Your task to perform on an android device: Add "macbook" to the cart on amazon Image 0: 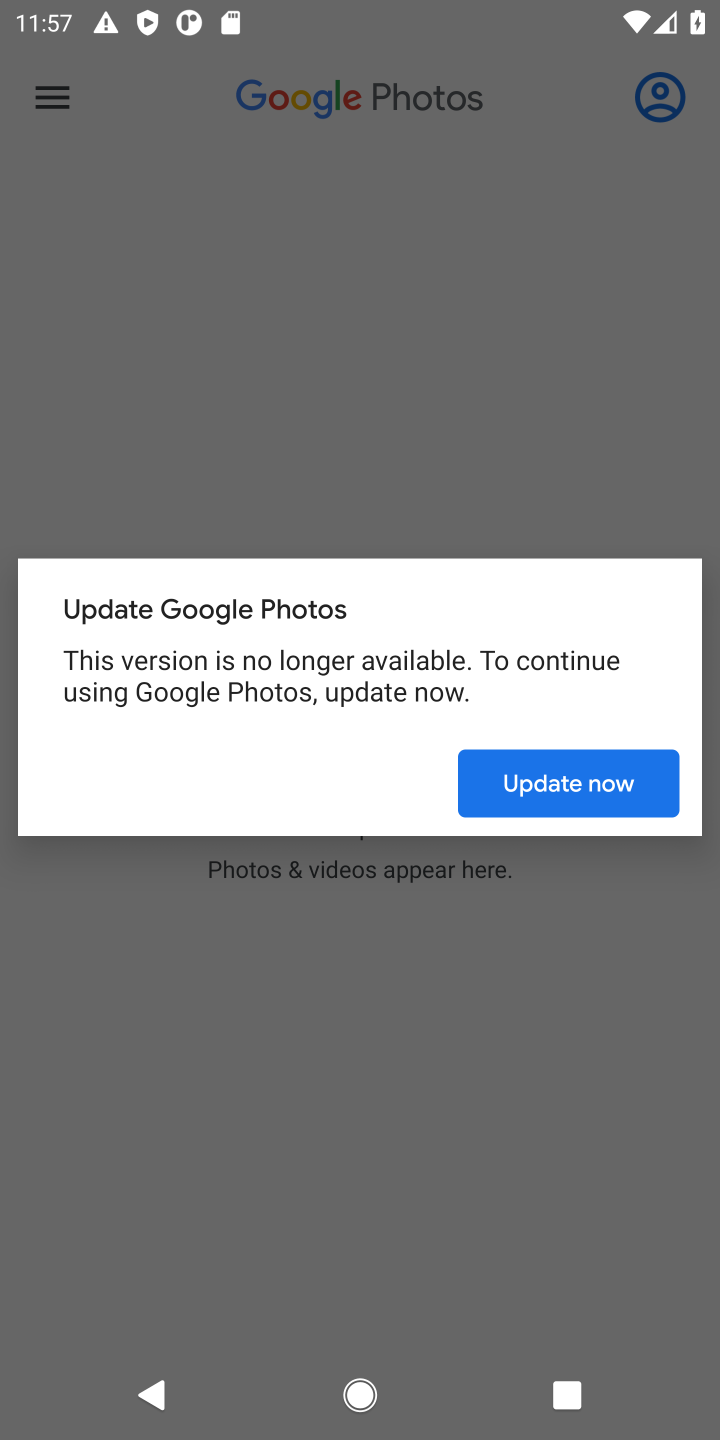
Step 0: press home button
Your task to perform on an android device: Add "macbook" to the cart on amazon Image 1: 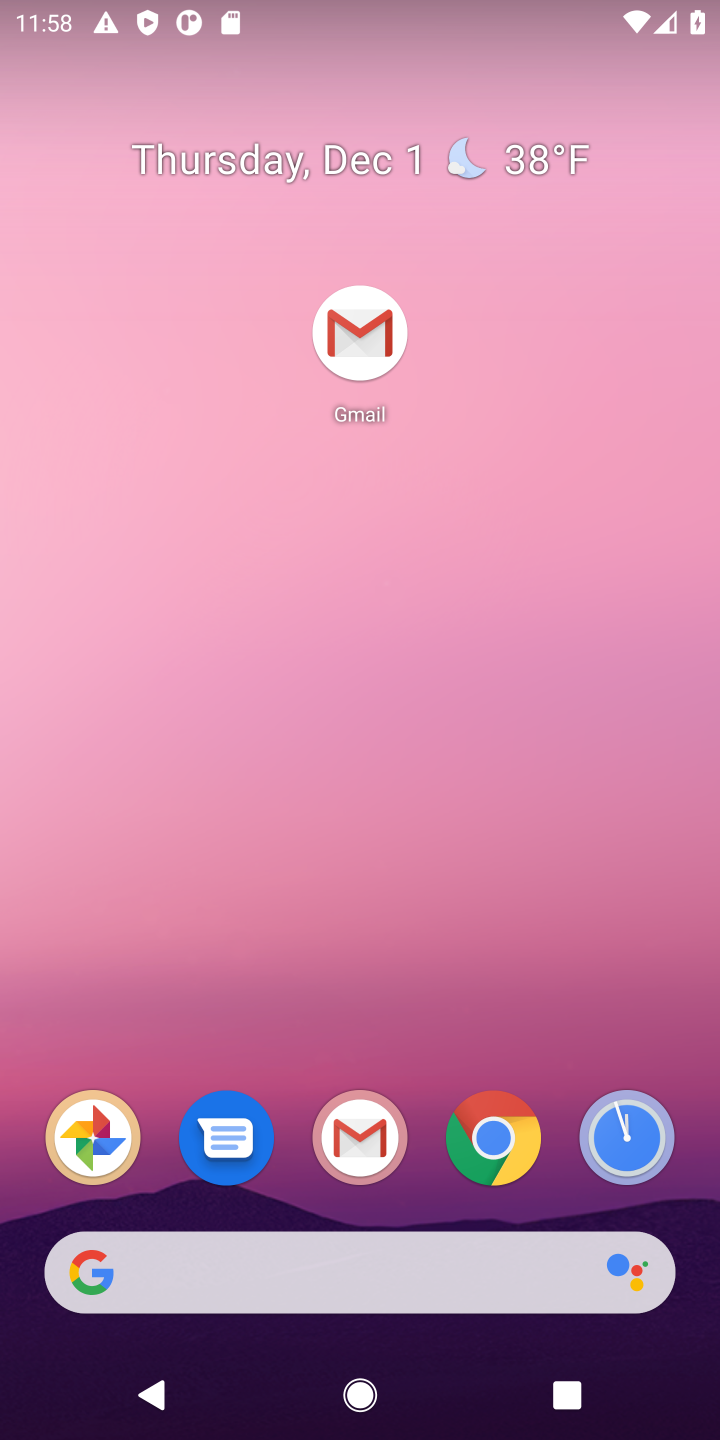
Step 1: drag from (468, 1025) to (527, 253)
Your task to perform on an android device: Add "macbook" to the cart on amazon Image 2: 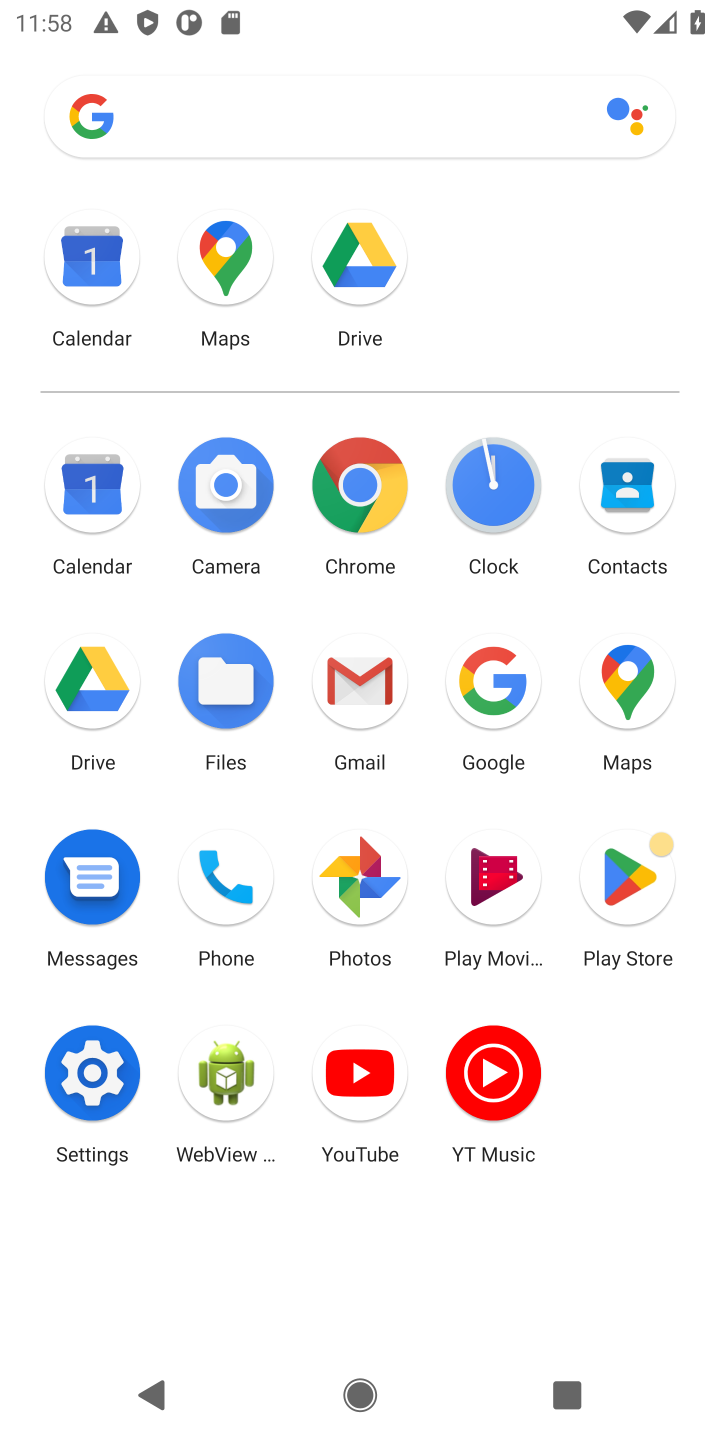
Step 2: click (500, 745)
Your task to perform on an android device: Add "macbook" to the cart on amazon Image 3: 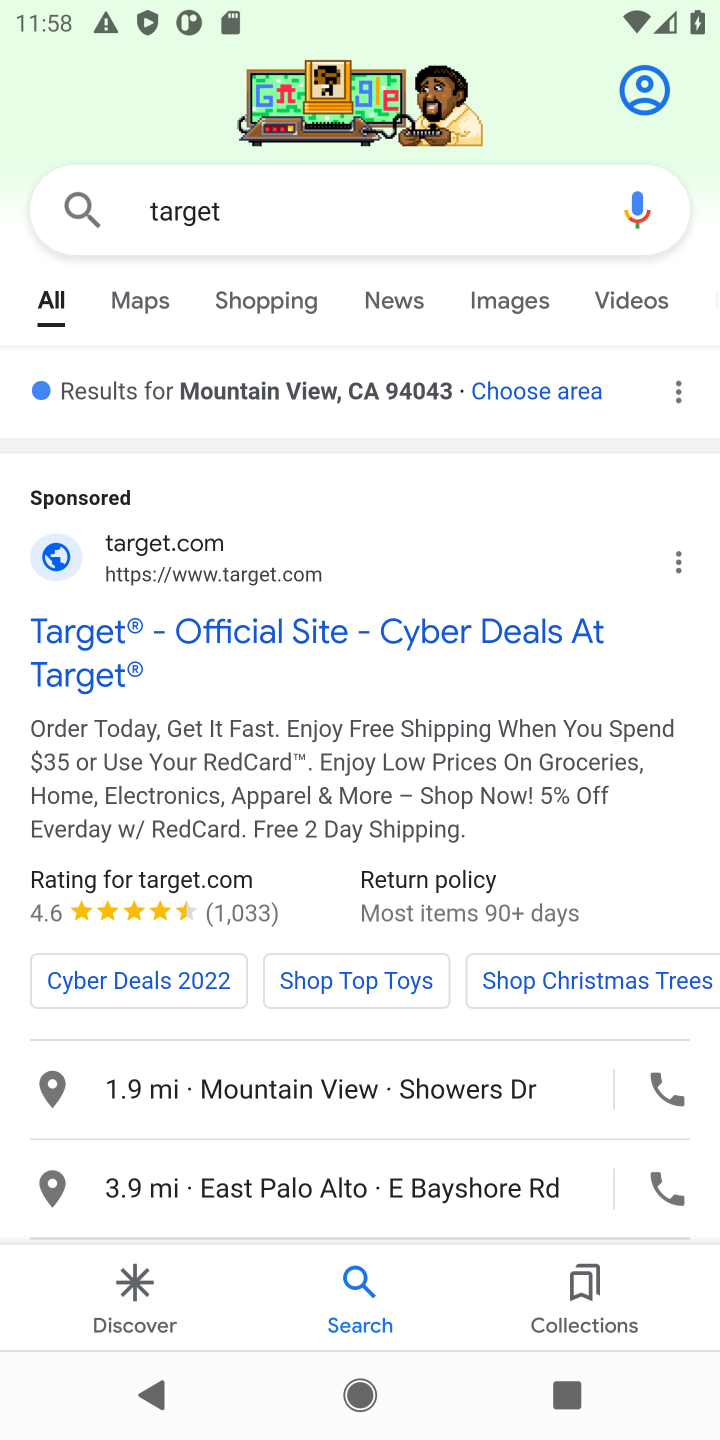
Step 3: click (489, 246)
Your task to perform on an android device: Add "macbook" to the cart on amazon Image 4: 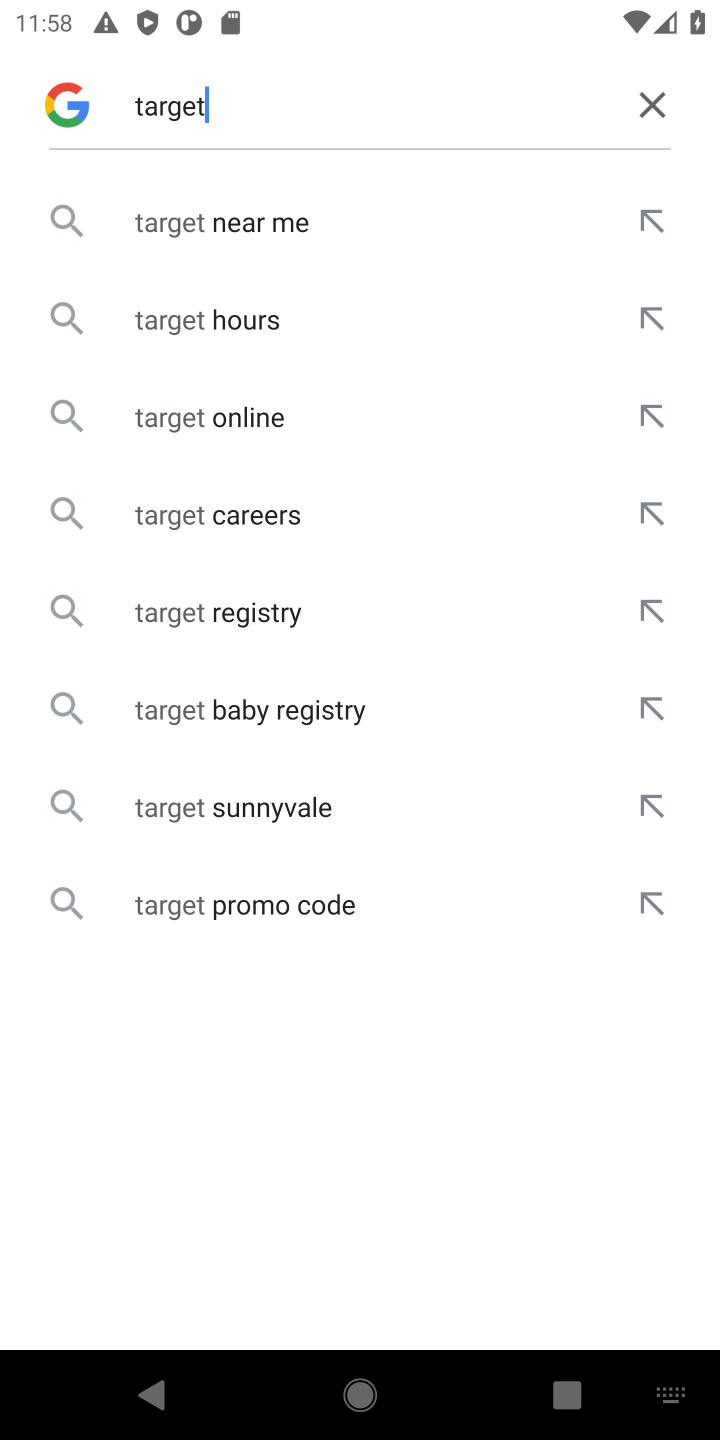
Step 4: click (649, 100)
Your task to perform on an android device: Add "macbook" to the cart on amazon Image 5: 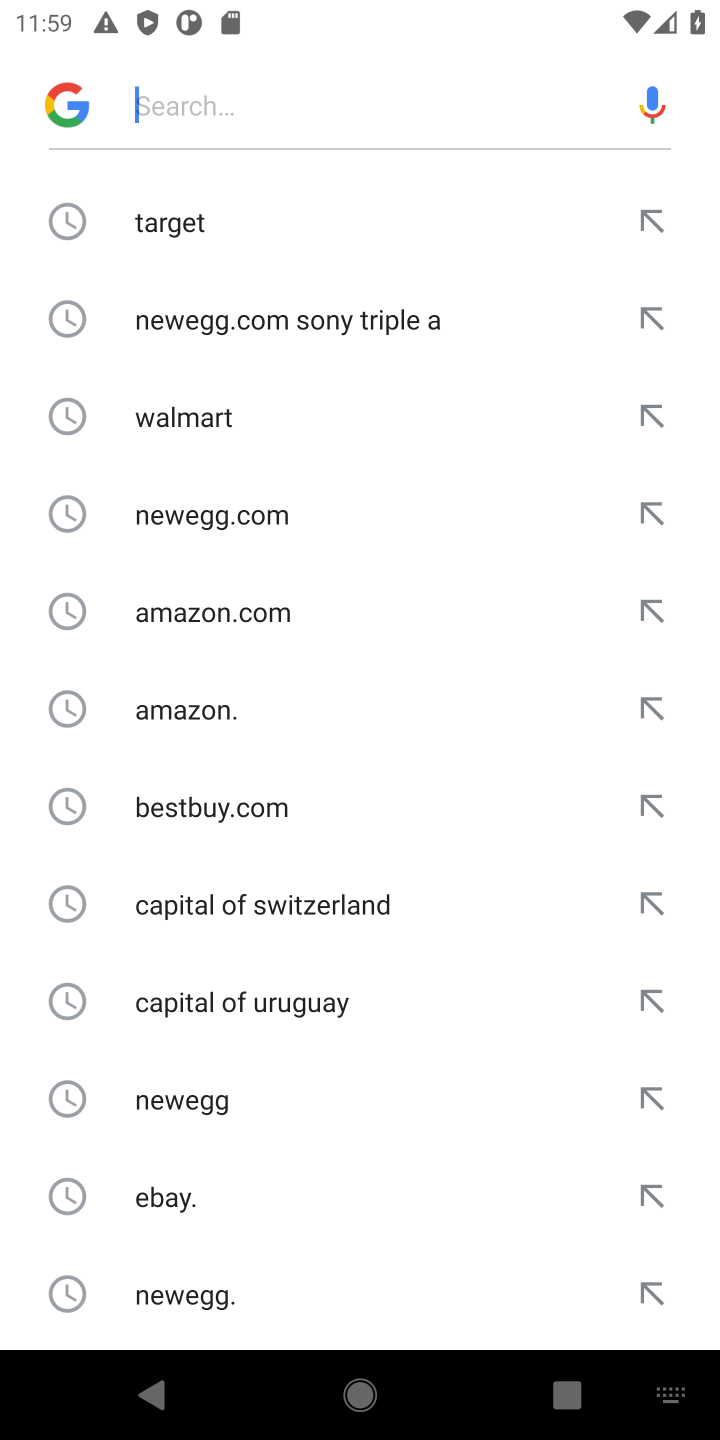
Step 5: type "macbook"
Your task to perform on an android device: Add "macbook" to the cart on amazon Image 6: 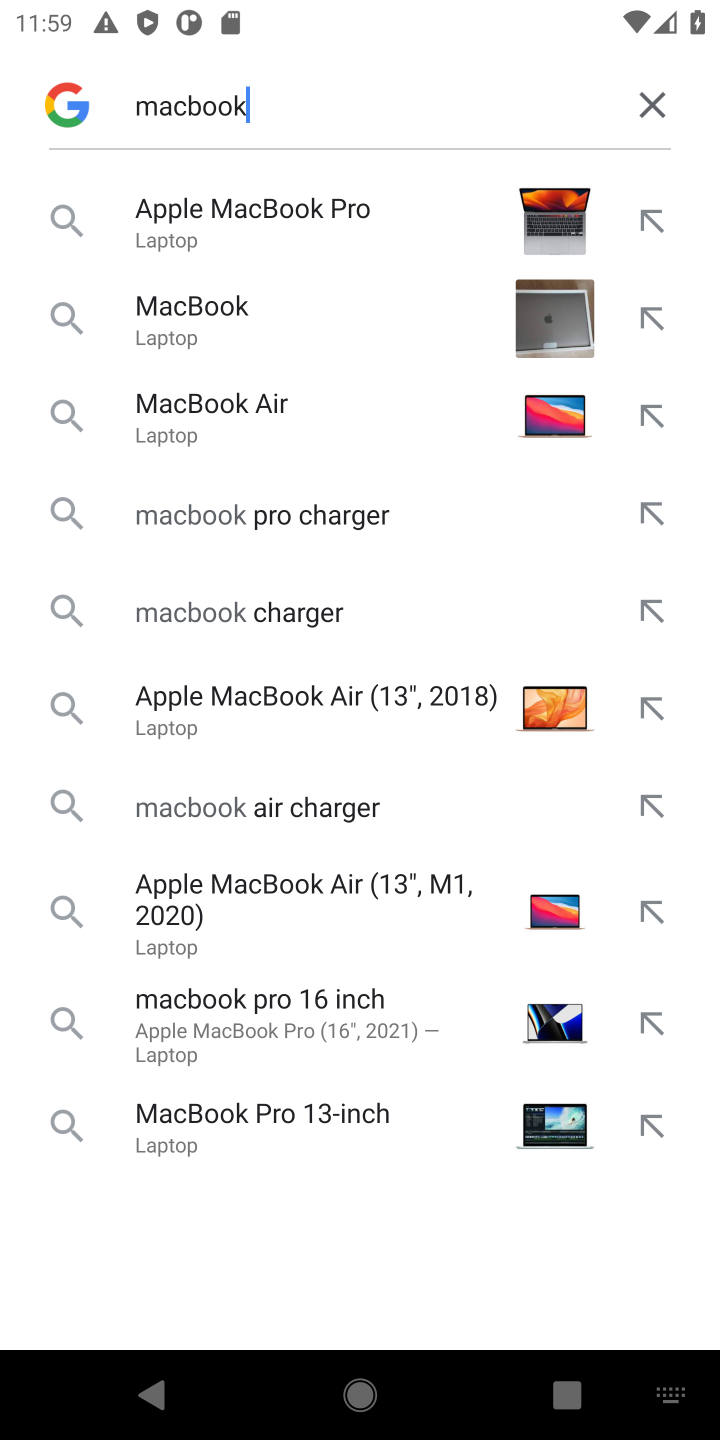
Step 6: click (661, 106)
Your task to perform on an android device: Add "macbook" to the cart on amazon Image 7: 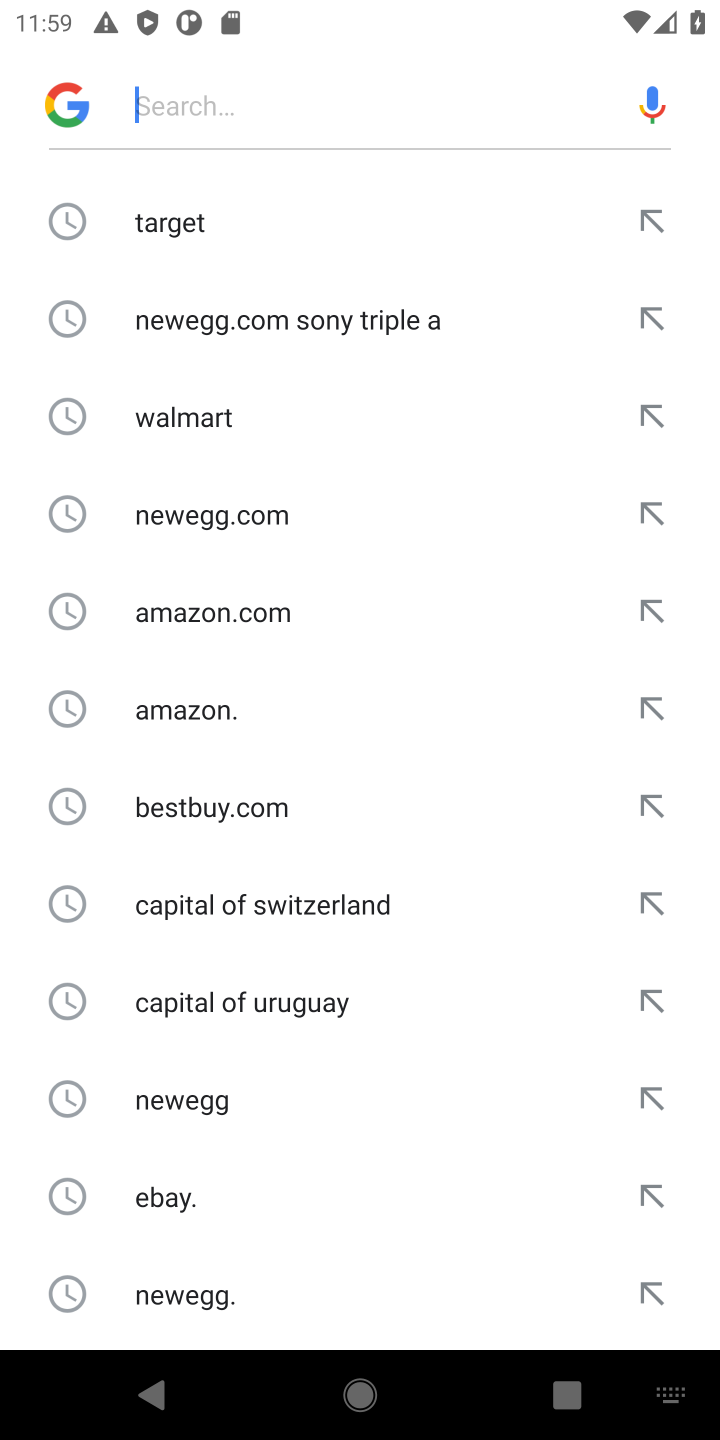
Step 7: click (308, 723)
Your task to perform on an android device: Add "macbook" to the cart on amazon Image 8: 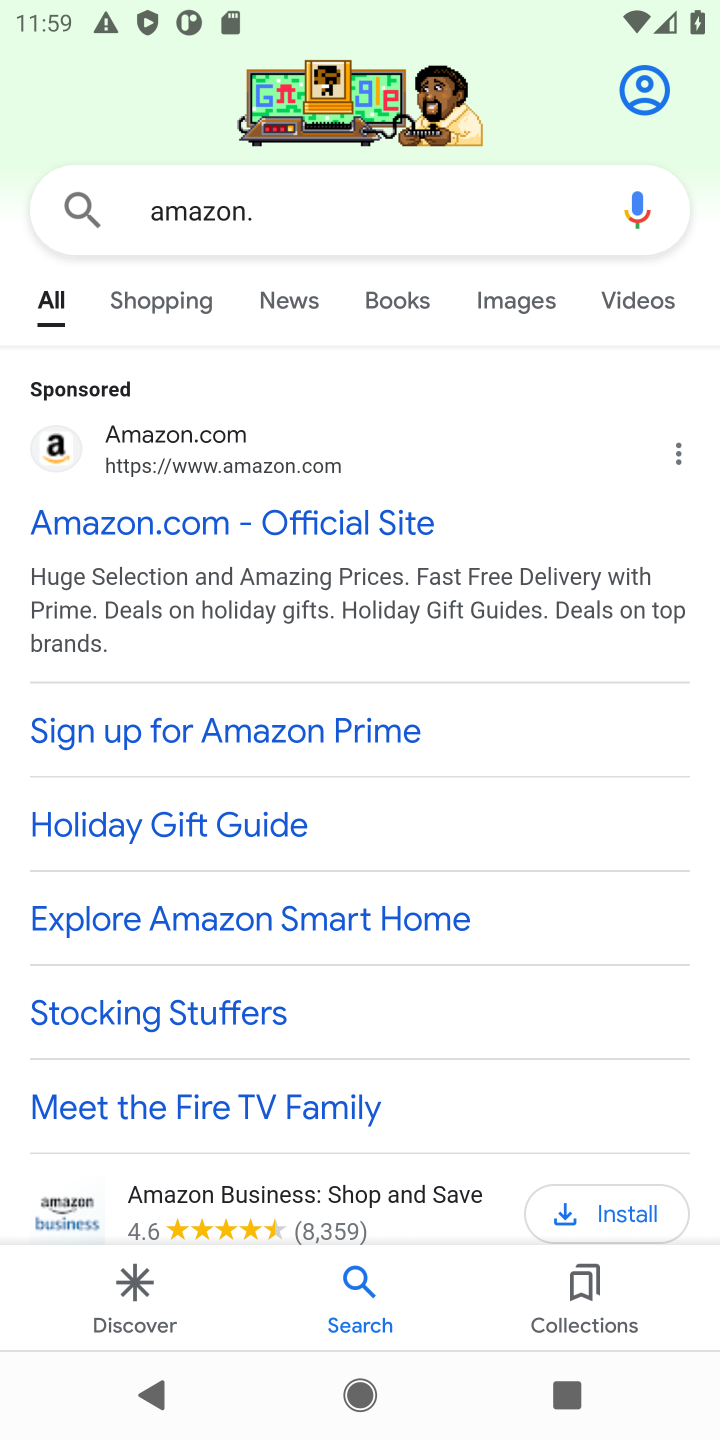
Step 8: click (300, 537)
Your task to perform on an android device: Add "macbook" to the cart on amazon Image 9: 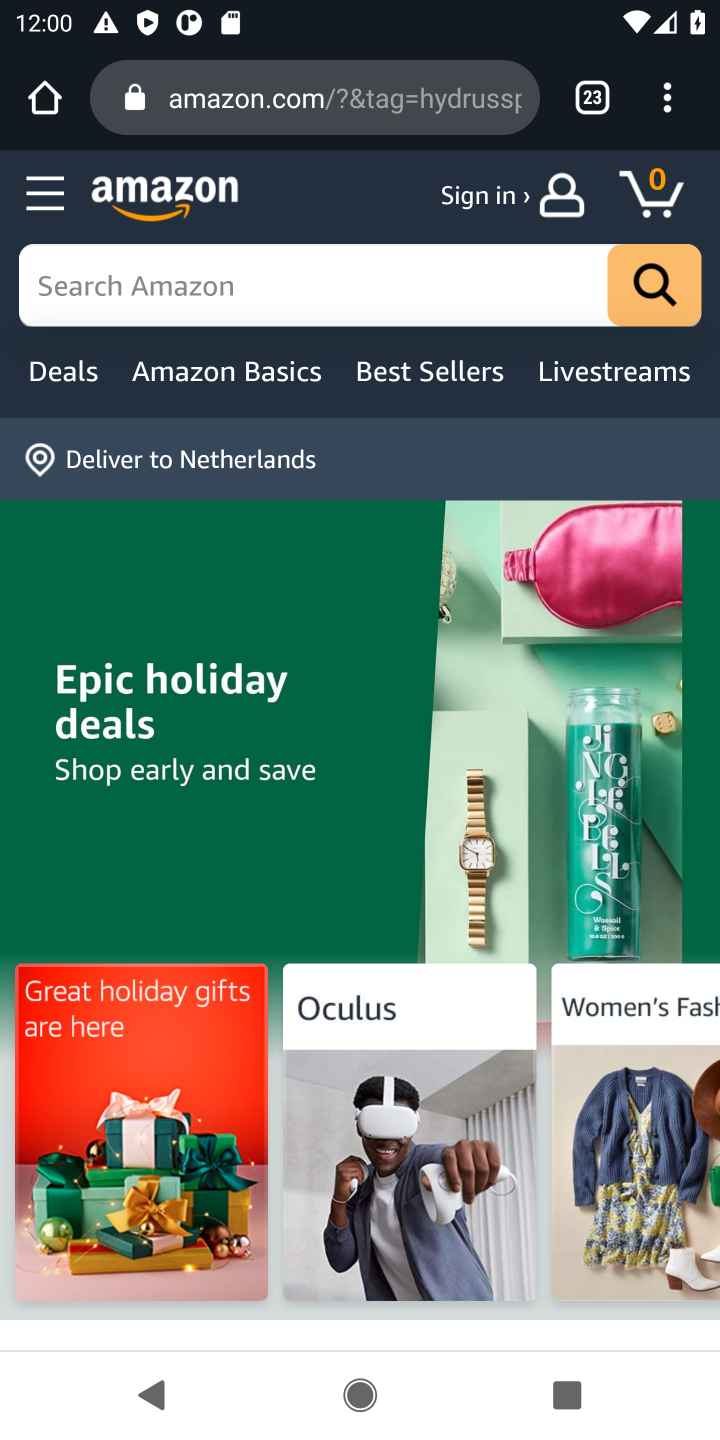
Step 9: click (277, 301)
Your task to perform on an android device: Add "macbook" to the cart on amazon Image 10: 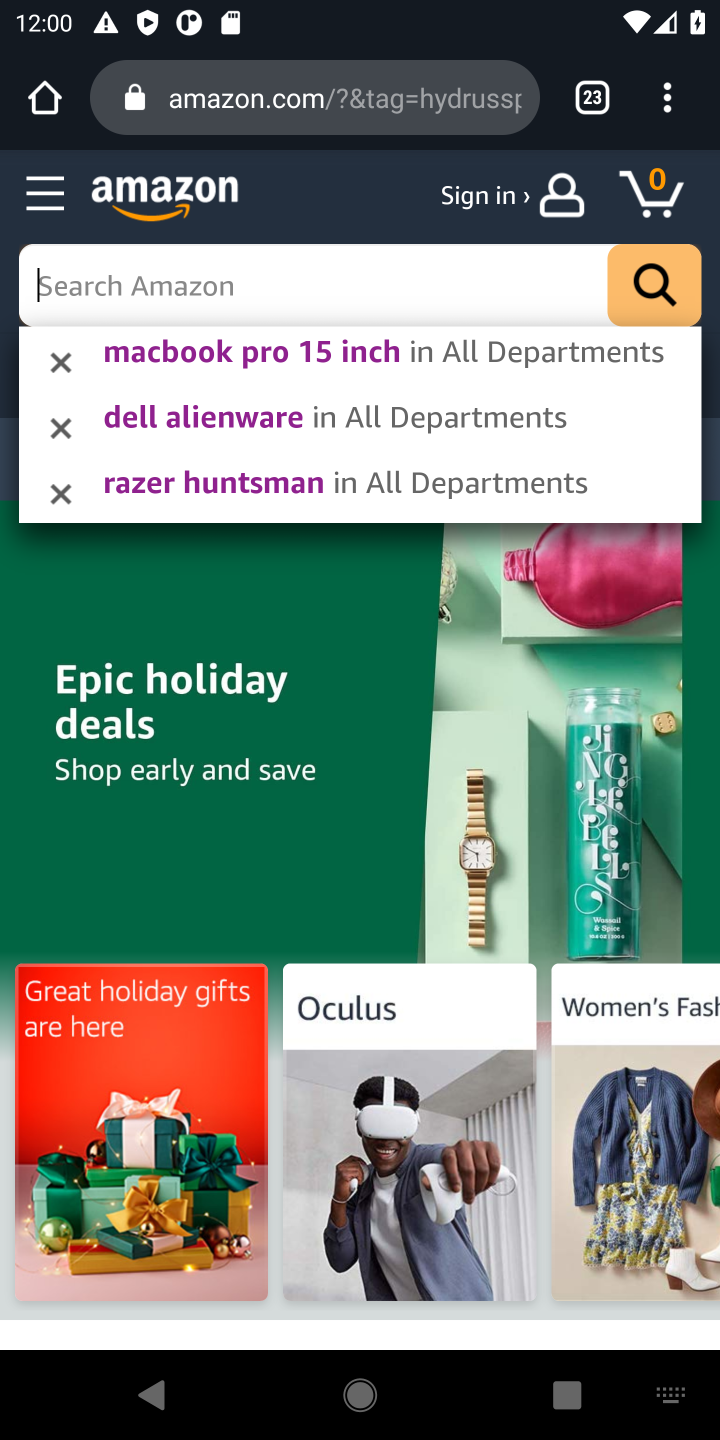
Step 10: type "macbook"
Your task to perform on an android device: Add "macbook" to the cart on amazon Image 11: 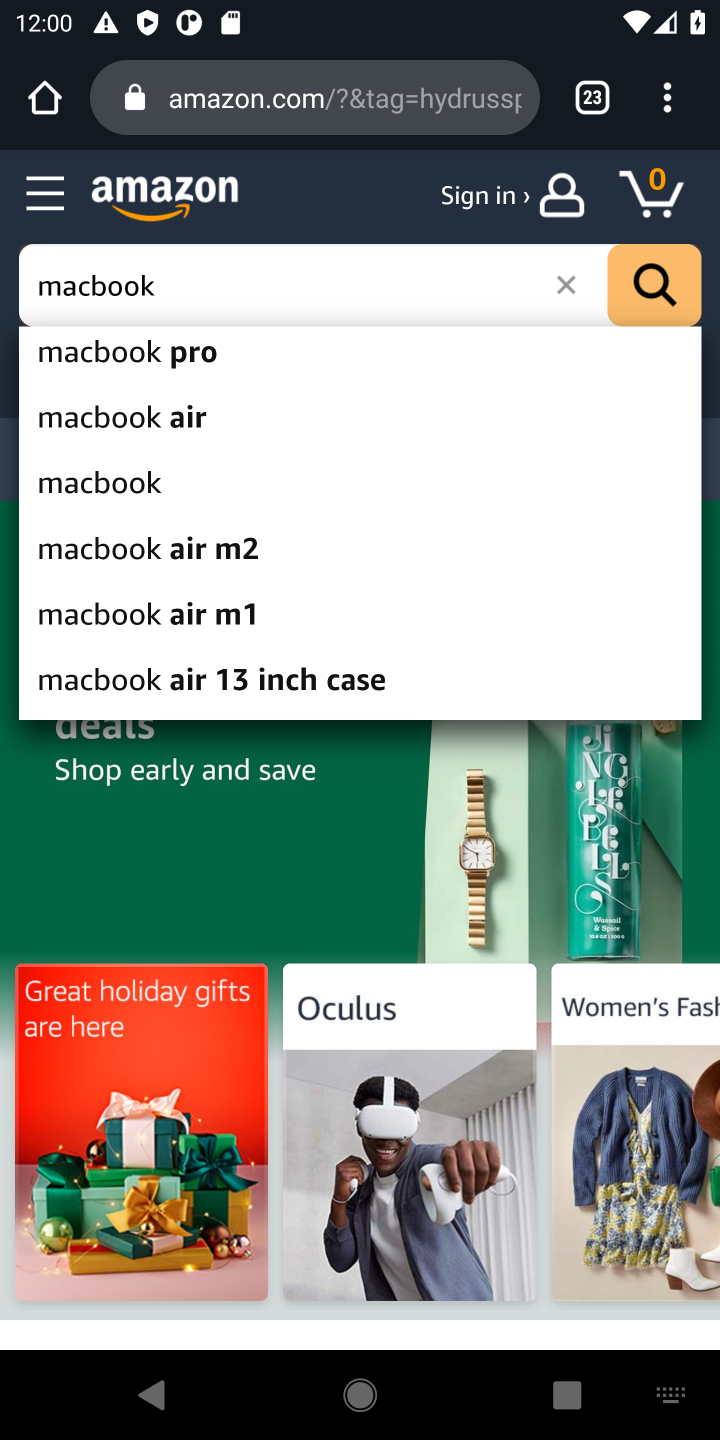
Step 11: click (116, 493)
Your task to perform on an android device: Add "macbook" to the cart on amazon Image 12: 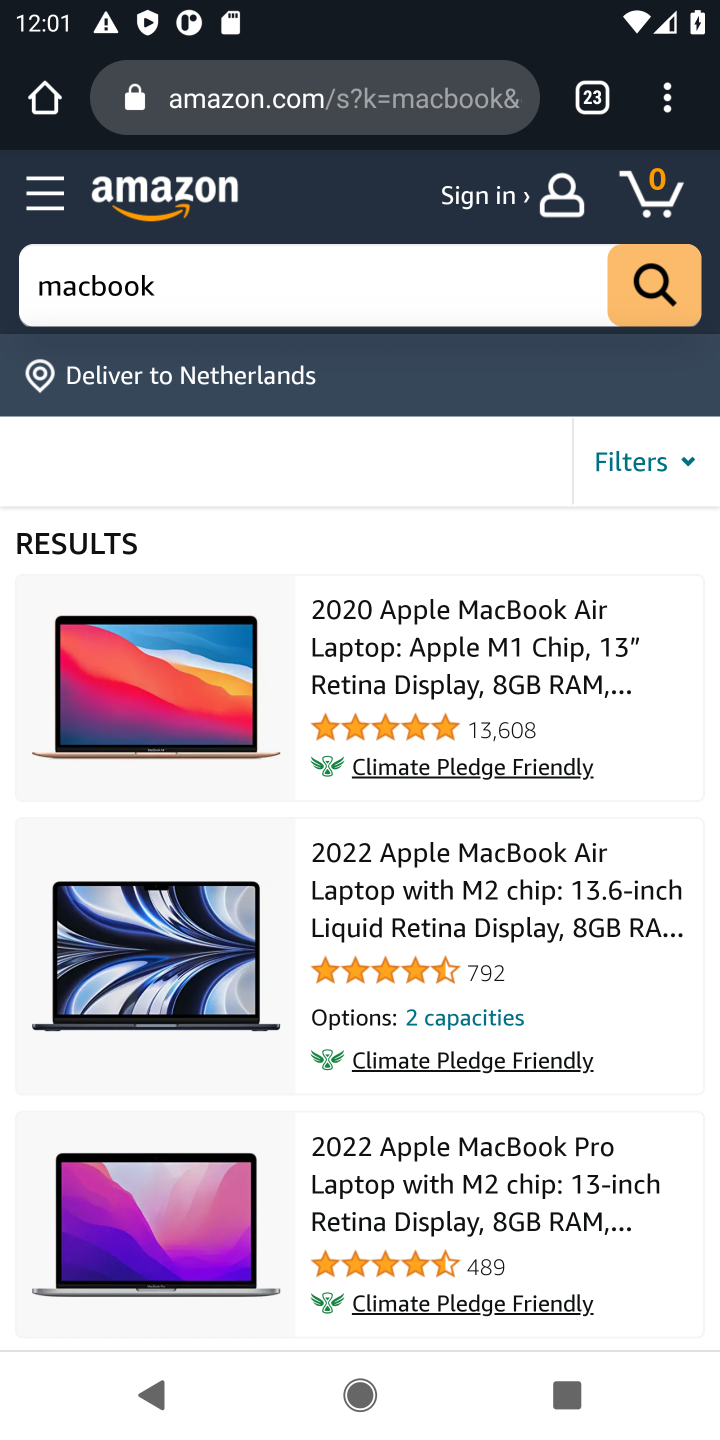
Step 12: click (442, 671)
Your task to perform on an android device: Add "macbook" to the cart on amazon Image 13: 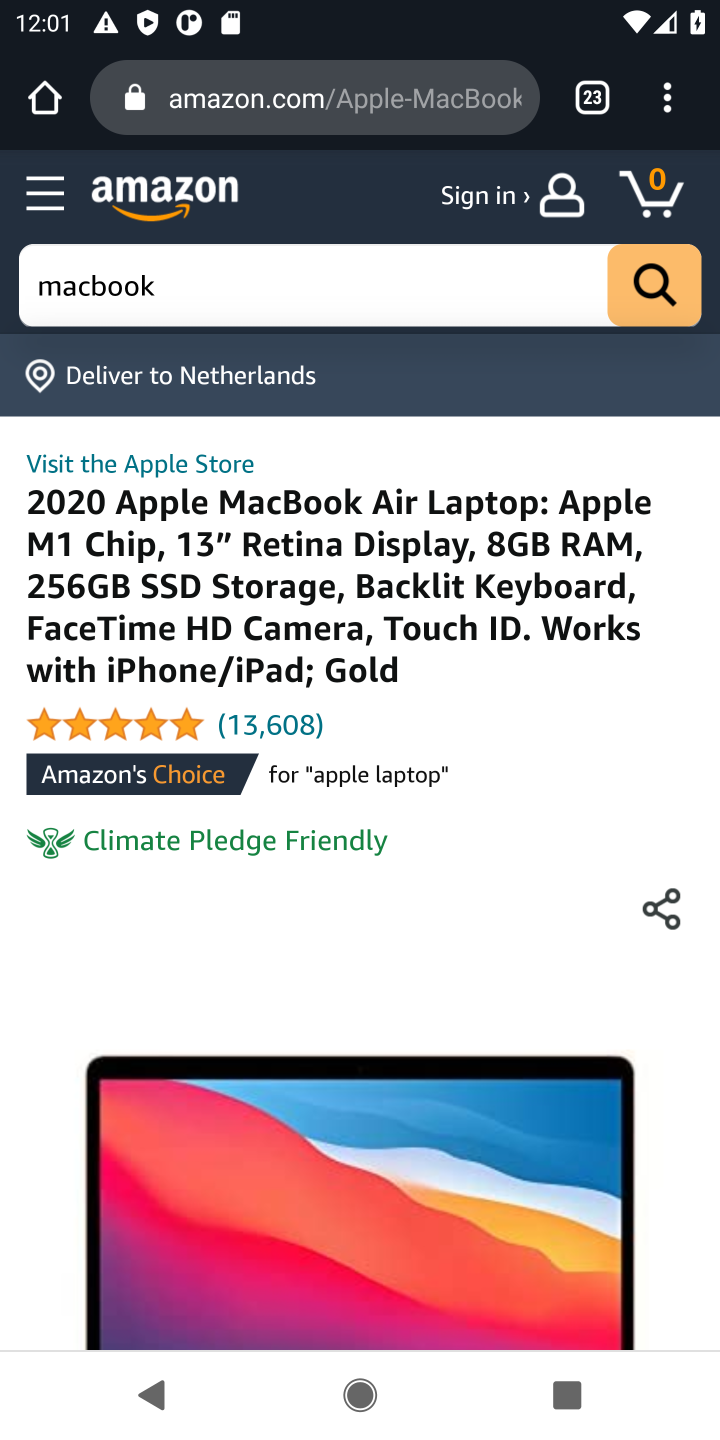
Step 13: task complete